Your task to perform on an android device: turn on improve location accuracy Image 0: 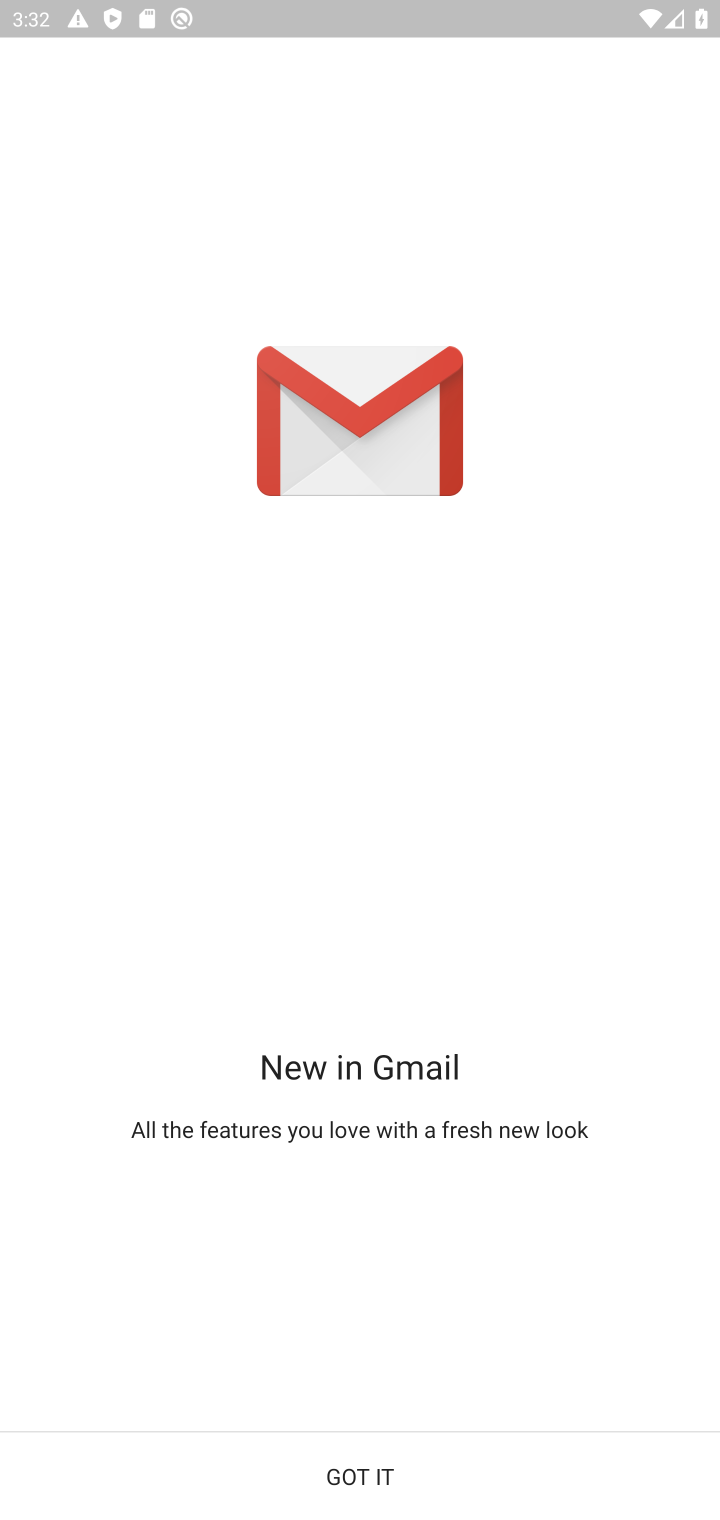
Step 0: click (365, 1453)
Your task to perform on an android device: turn on improve location accuracy Image 1: 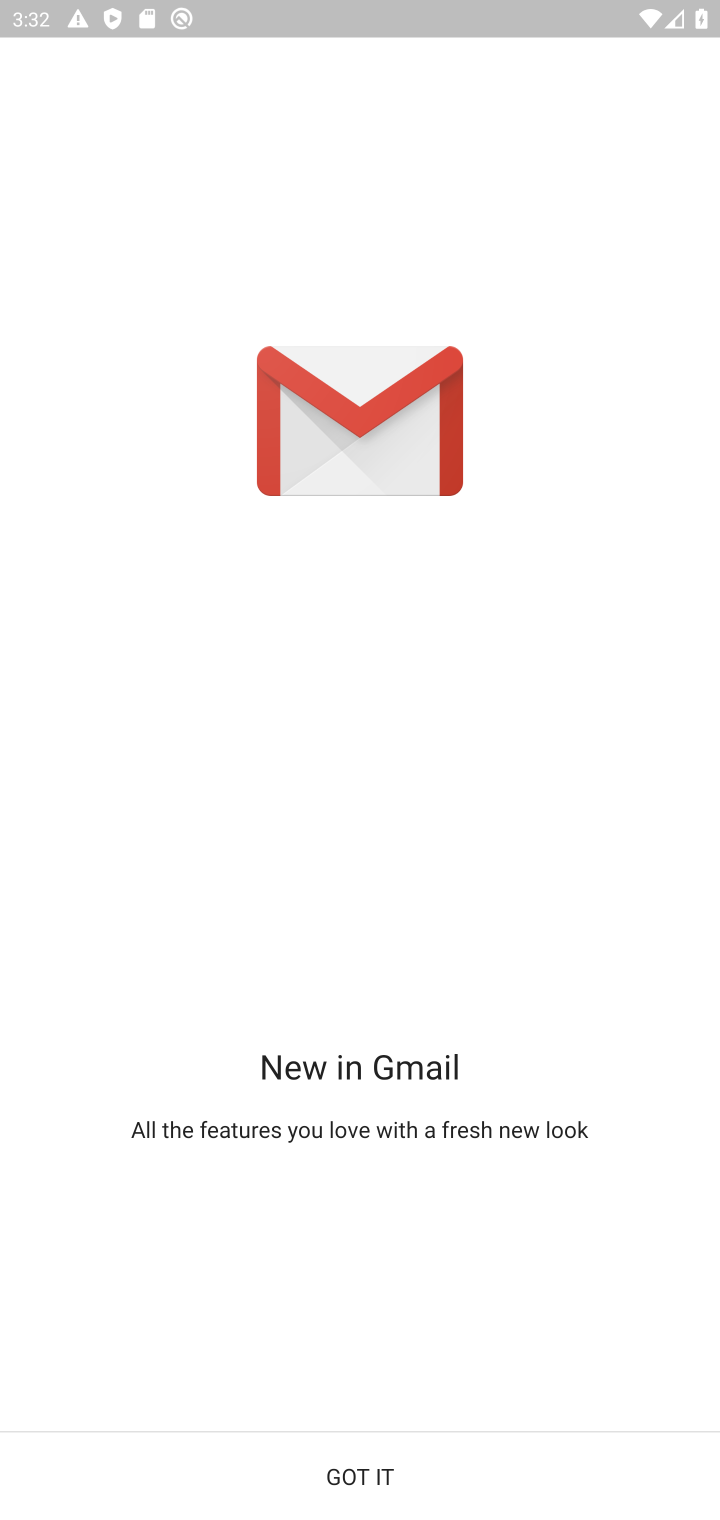
Step 1: click (367, 1480)
Your task to perform on an android device: turn on improve location accuracy Image 2: 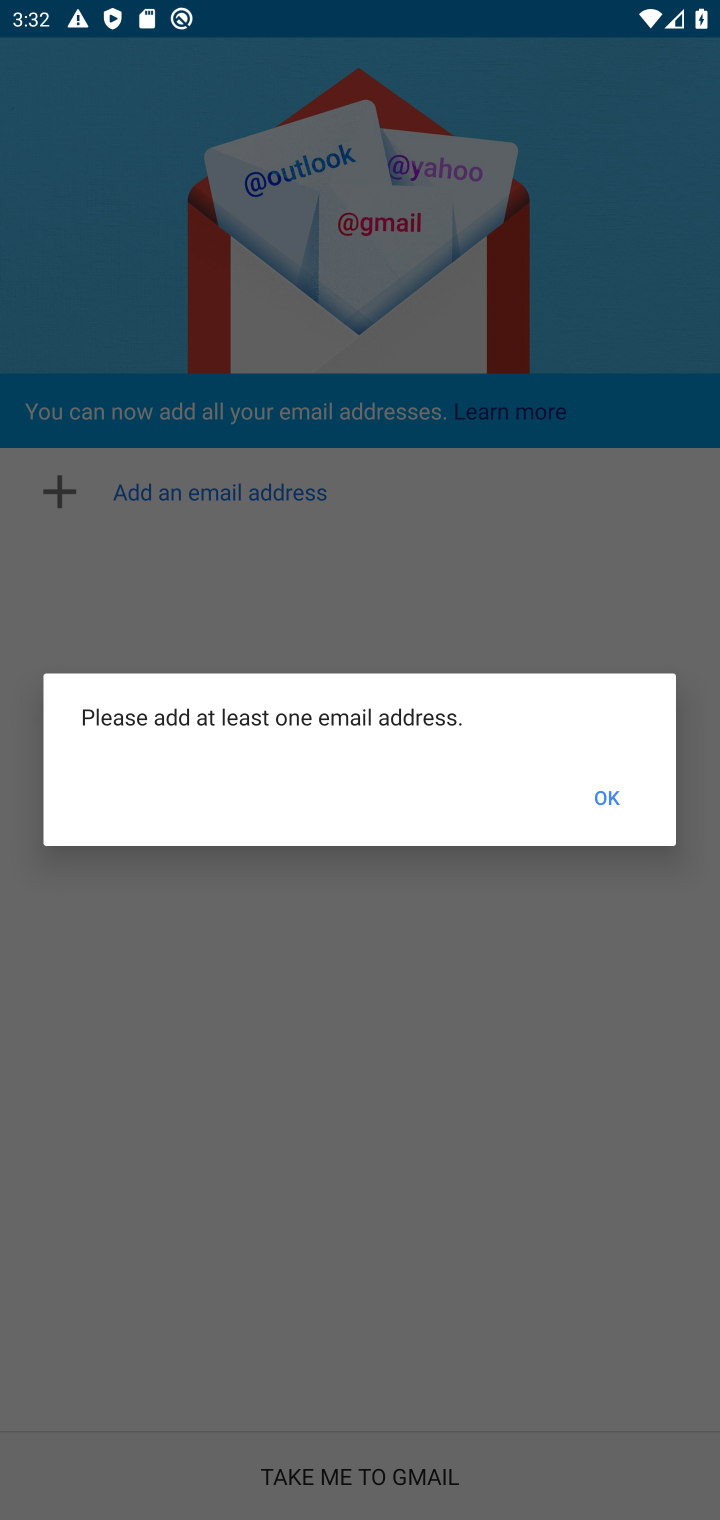
Step 2: task complete